Your task to perform on an android device: turn off wifi Image 0: 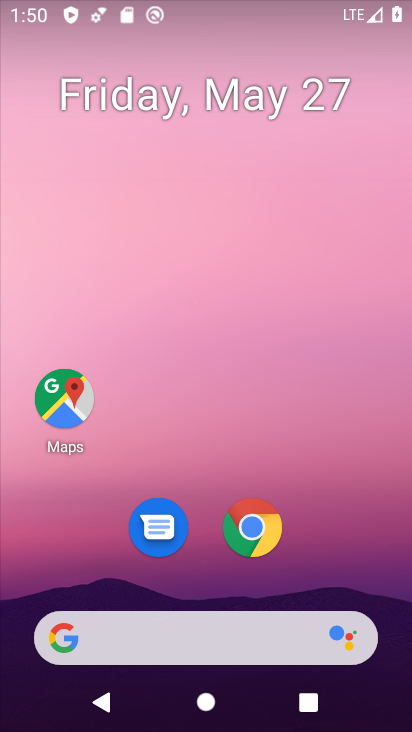
Step 0: drag from (167, 627) to (270, 65)
Your task to perform on an android device: turn off wifi Image 1: 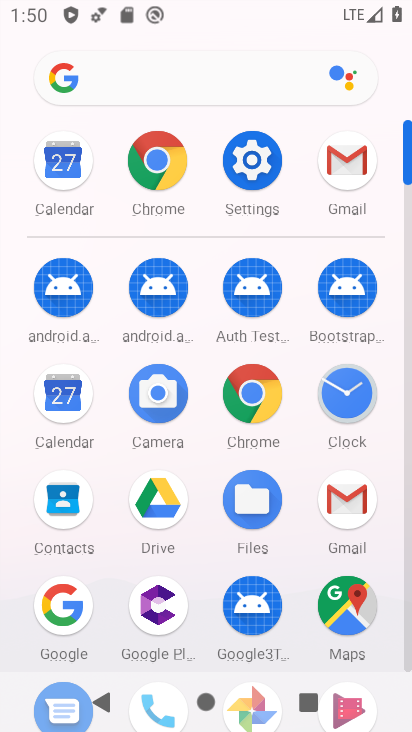
Step 1: click (245, 151)
Your task to perform on an android device: turn off wifi Image 2: 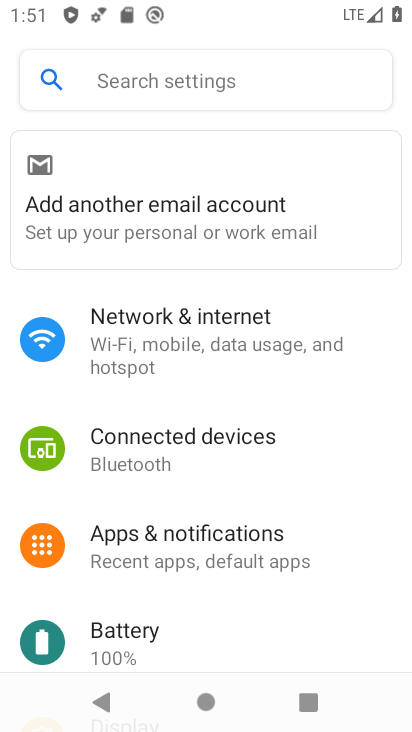
Step 2: click (213, 314)
Your task to perform on an android device: turn off wifi Image 3: 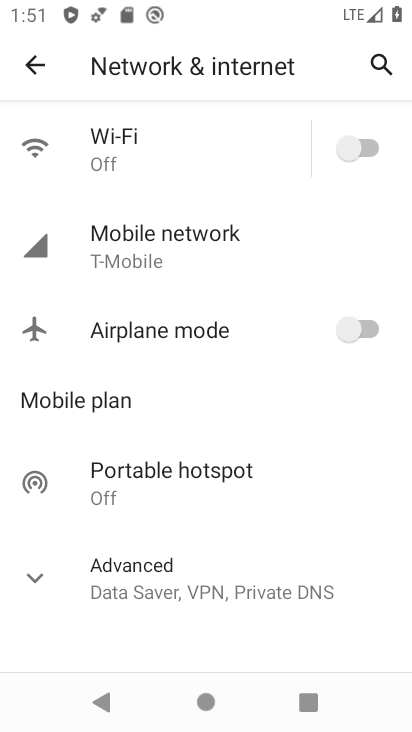
Step 3: task complete